Your task to perform on an android device: stop showing notifications on the lock screen Image 0: 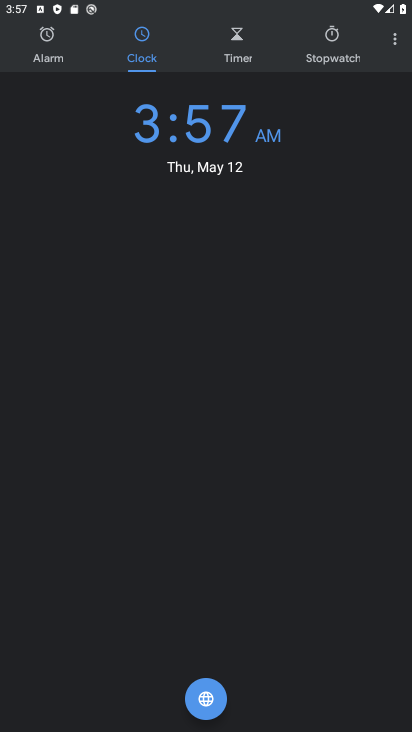
Step 0: press home button
Your task to perform on an android device: stop showing notifications on the lock screen Image 1: 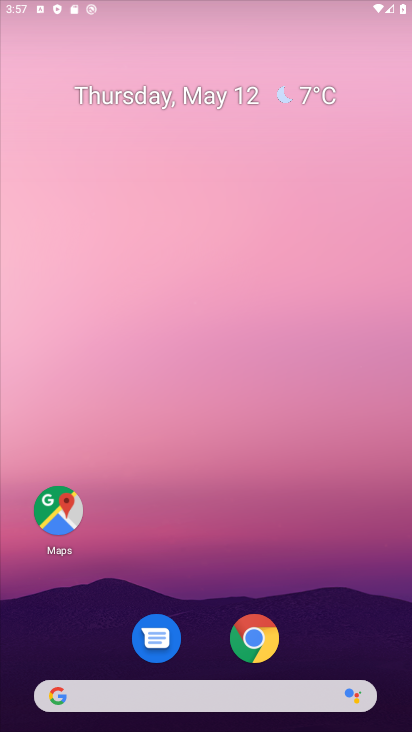
Step 1: drag from (296, 576) to (274, 109)
Your task to perform on an android device: stop showing notifications on the lock screen Image 2: 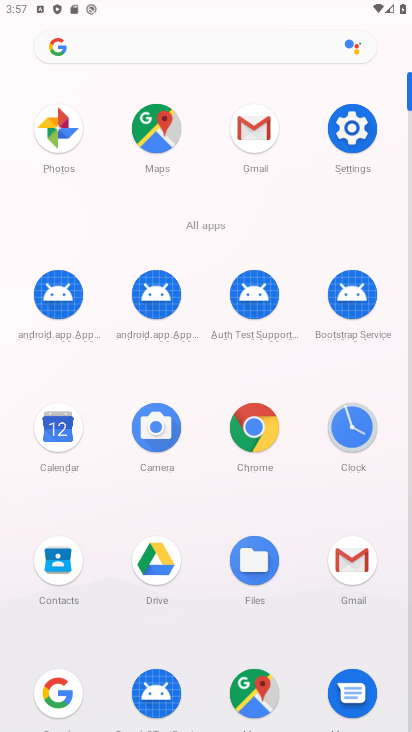
Step 2: click (346, 135)
Your task to perform on an android device: stop showing notifications on the lock screen Image 3: 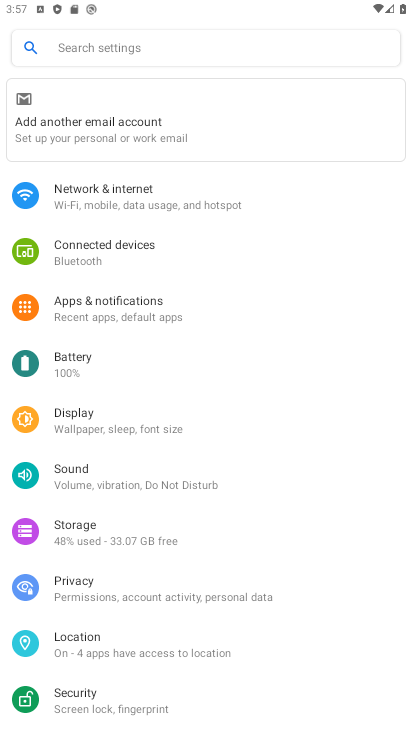
Step 3: click (143, 313)
Your task to perform on an android device: stop showing notifications on the lock screen Image 4: 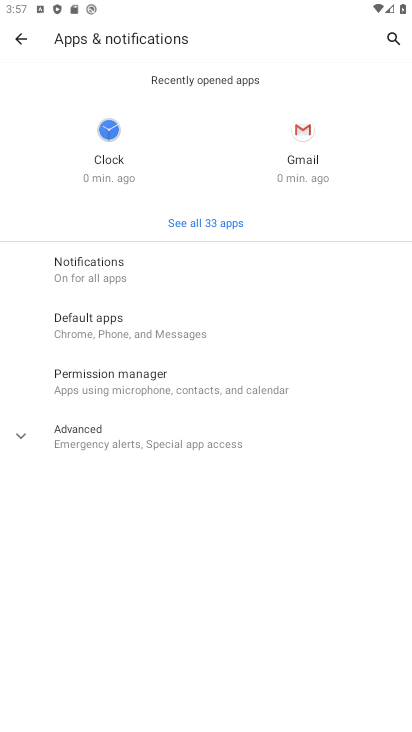
Step 4: click (136, 274)
Your task to perform on an android device: stop showing notifications on the lock screen Image 5: 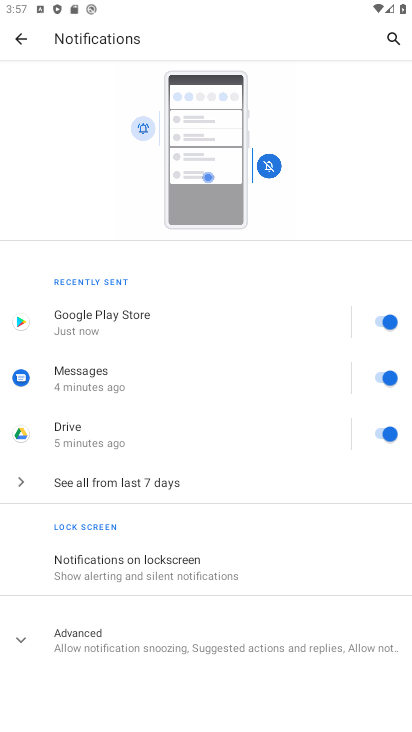
Step 5: click (234, 573)
Your task to perform on an android device: stop showing notifications on the lock screen Image 6: 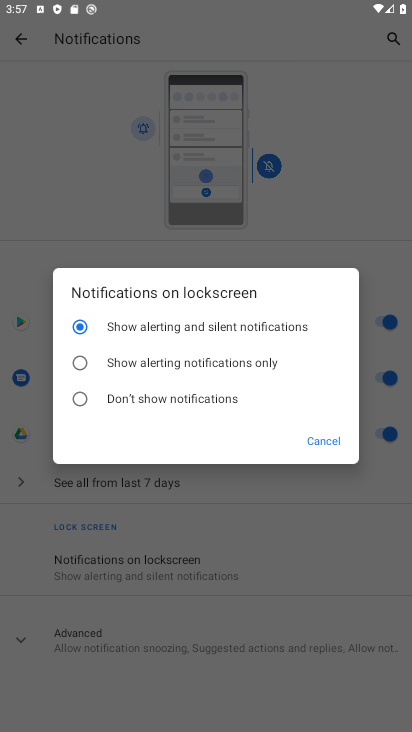
Step 6: click (174, 397)
Your task to perform on an android device: stop showing notifications on the lock screen Image 7: 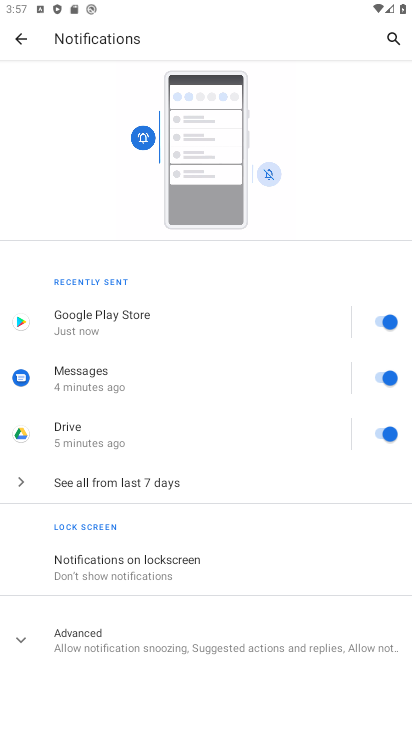
Step 7: task complete